Your task to perform on an android device: open a bookmark in the chrome app Image 0: 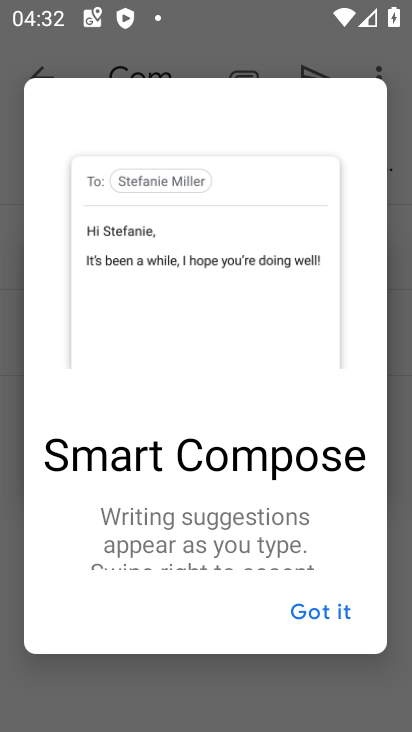
Step 0: press home button
Your task to perform on an android device: open a bookmark in the chrome app Image 1: 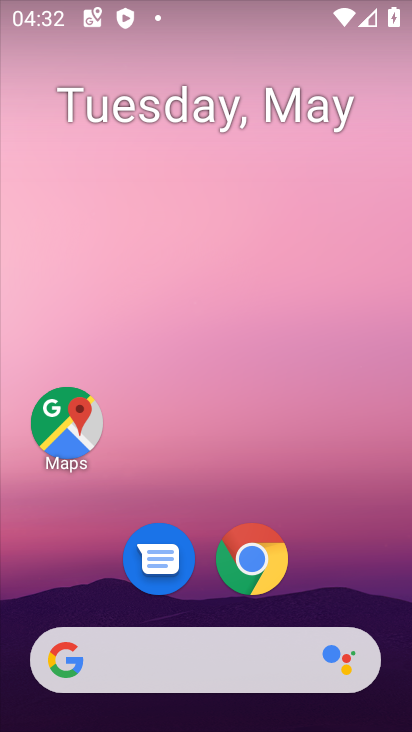
Step 1: click (265, 558)
Your task to perform on an android device: open a bookmark in the chrome app Image 2: 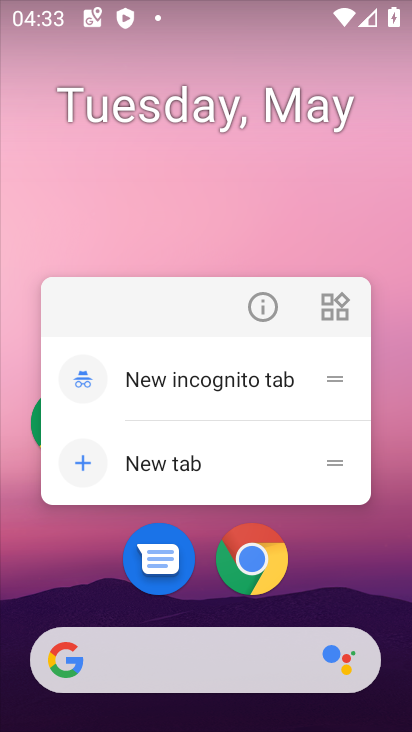
Step 2: click (263, 544)
Your task to perform on an android device: open a bookmark in the chrome app Image 3: 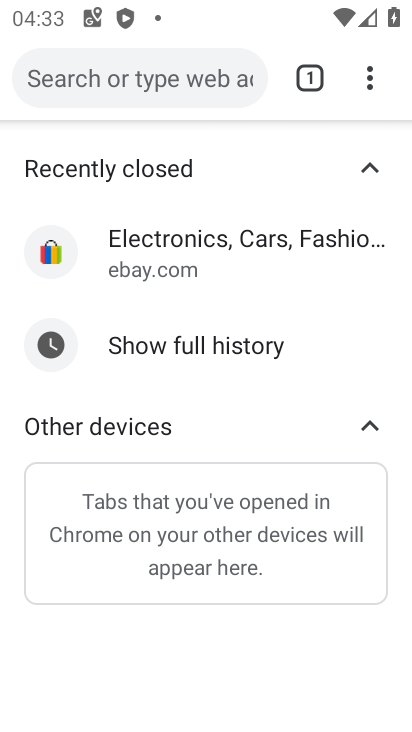
Step 3: click (372, 79)
Your task to perform on an android device: open a bookmark in the chrome app Image 4: 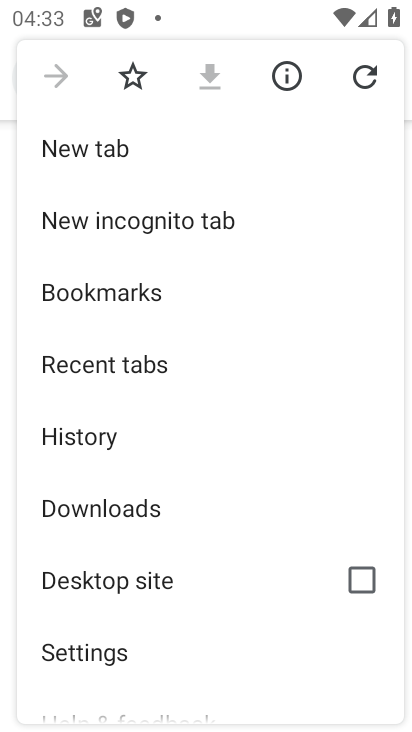
Step 4: click (141, 297)
Your task to perform on an android device: open a bookmark in the chrome app Image 5: 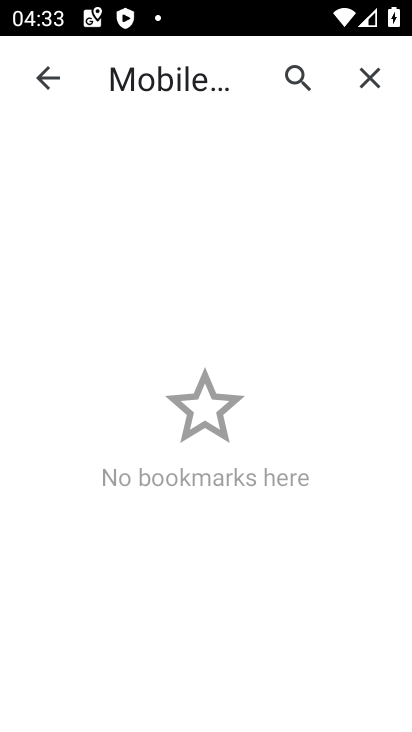
Step 5: task complete